Your task to perform on an android device: Open wifi settings Image 0: 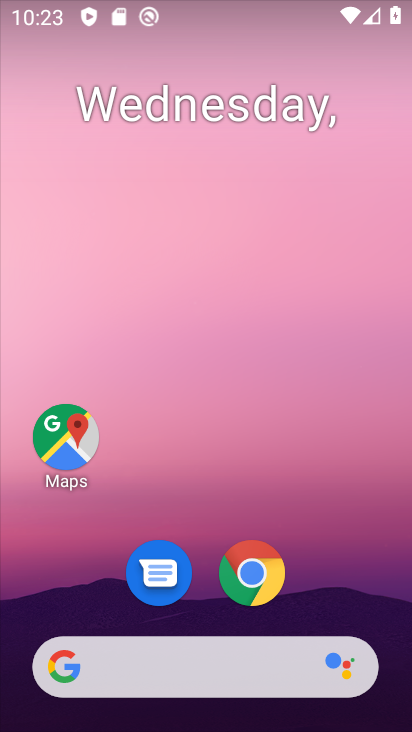
Step 0: drag from (373, 597) to (353, 125)
Your task to perform on an android device: Open wifi settings Image 1: 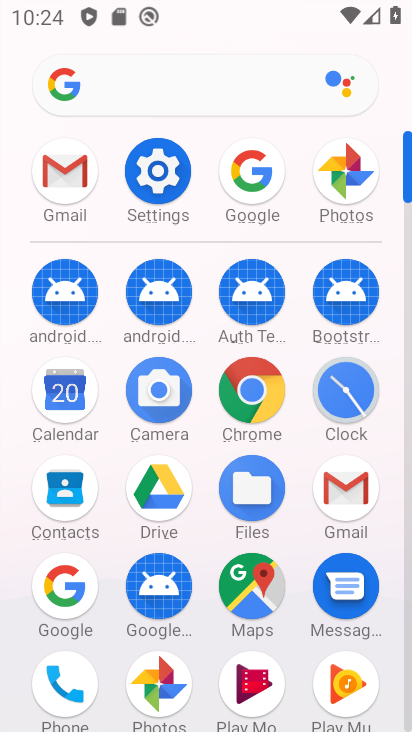
Step 1: click (157, 174)
Your task to perform on an android device: Open wifi settings Image 2: 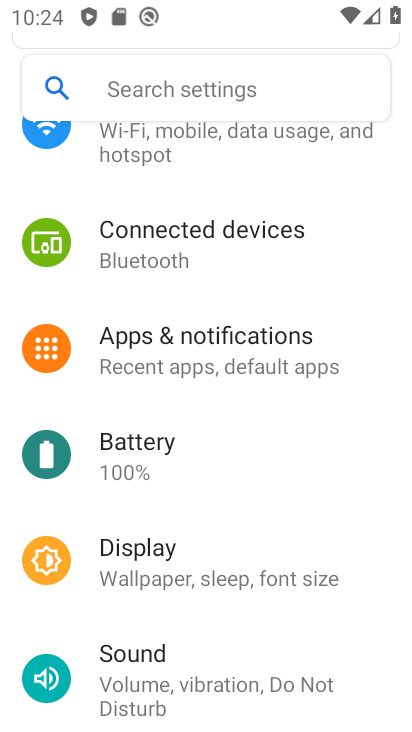
Step 2: click (125, 127)
Your task to perform on an android device: Open wifi settings Image 3: 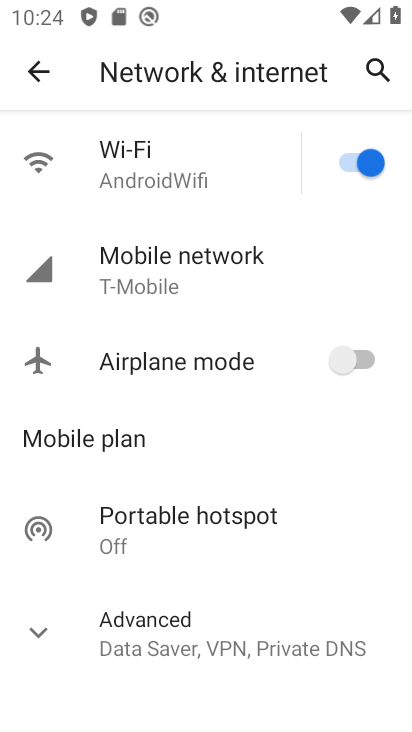
Step 3: click (170, 170)
Your task to perform on an android device: Open wifi settings Image 4: 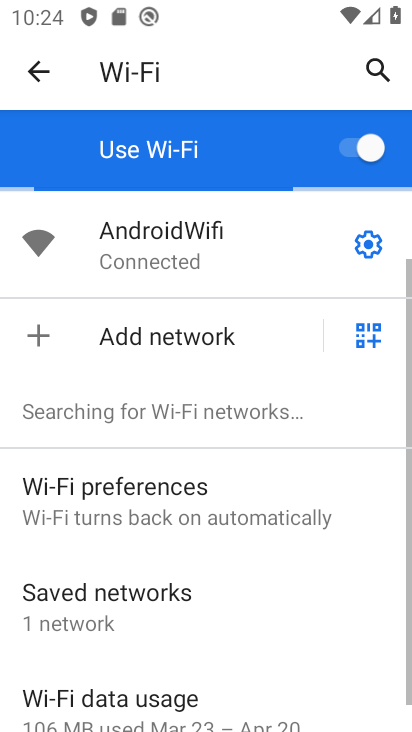
Step 4: click (367, 240)
Your task to perform on an android device: Open wifi settings Image 5: 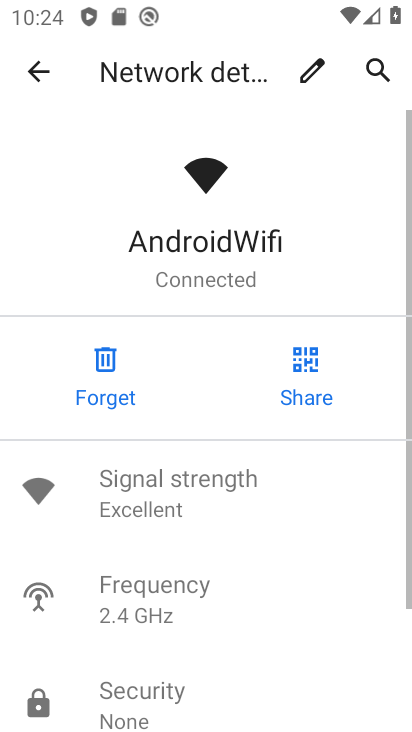
Step 5: task complete